Your task to perform on an android device: Open Yahoo.com Image 0: 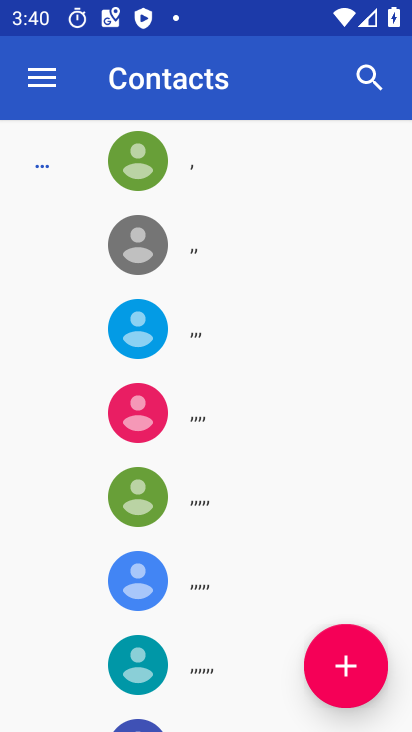
Step 0: press home button
Your task to perform on an android device: Open Yahoo.com Image 1: 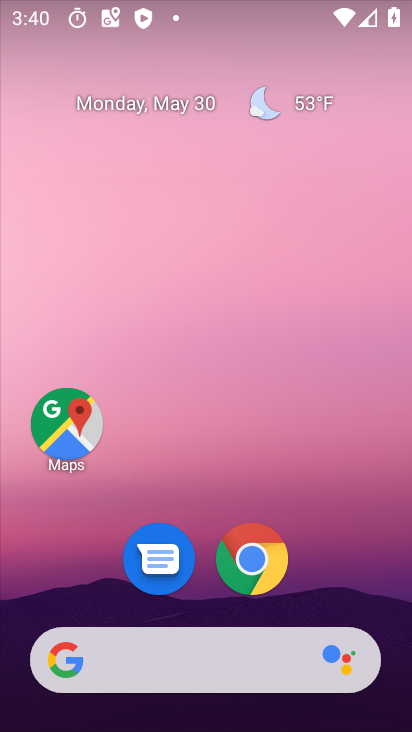
Step 1: click (253, 561)
Your task to perform on an android device: Open Yahoo.com Image 2: 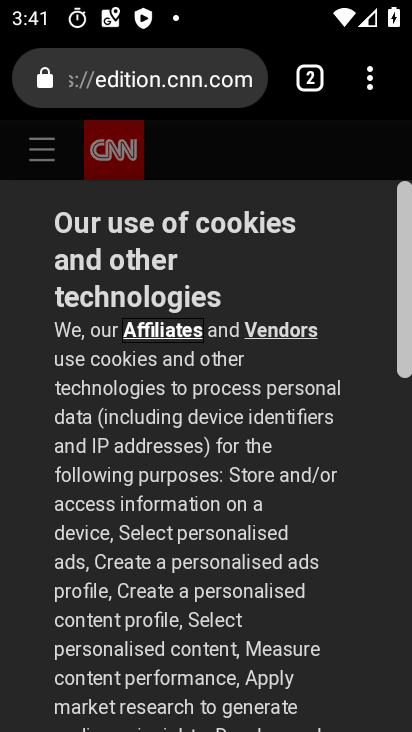
Step 2: click (372, 89)
Your task to perform on an android device: Open Yahoo.com Image 3: 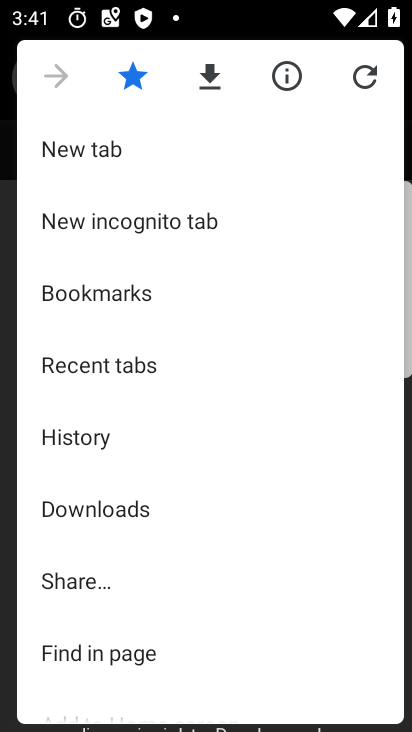
Step 3: click (95, 146)
Your task to perform on an android device: Open Yahoo.com Image 4: 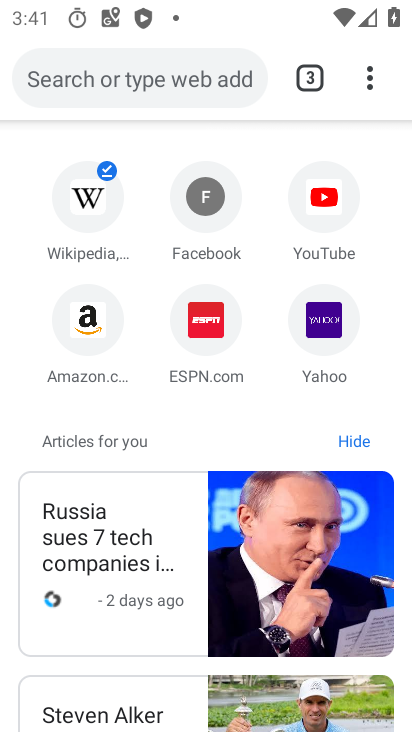
Step 4: click (326, 326)
Your task to perform on an android device: Open Yahoo.com Image 5: 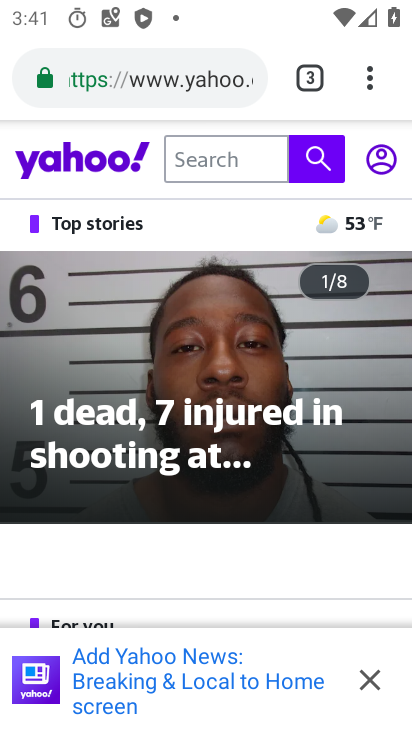
Step 5: task complete